Your task to perform on an android device: Search for "acer predator" on ebay.com, select the first entry, add it to the cart, then select checkout. Image 0: 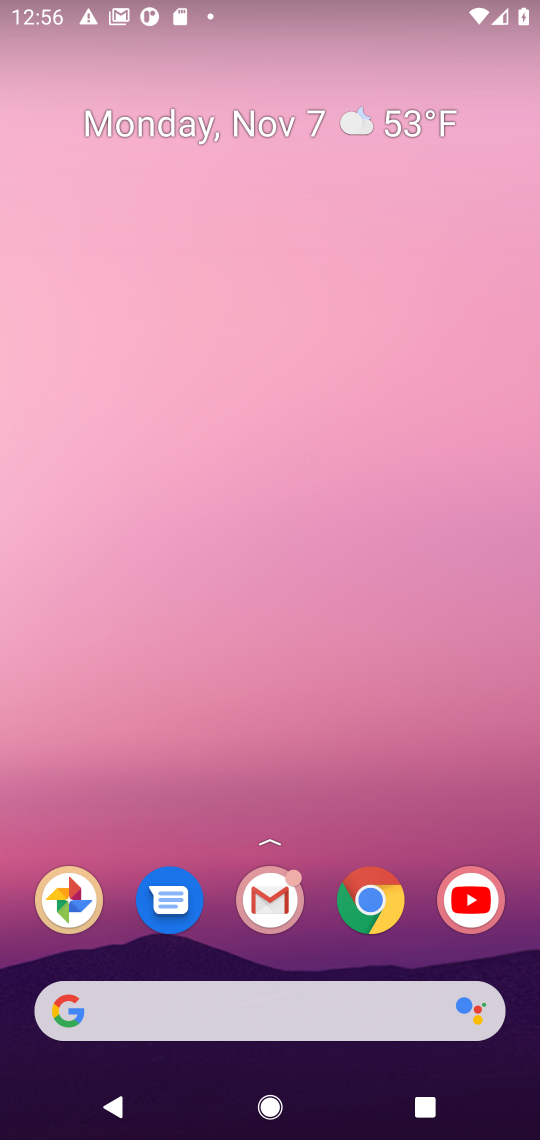
Step 0: click (178, 1028)
Your task to perform on an android device: Search for "acer predator" on ebay.com, select the first entry, add it to the cart, then select checkout. Image 1: 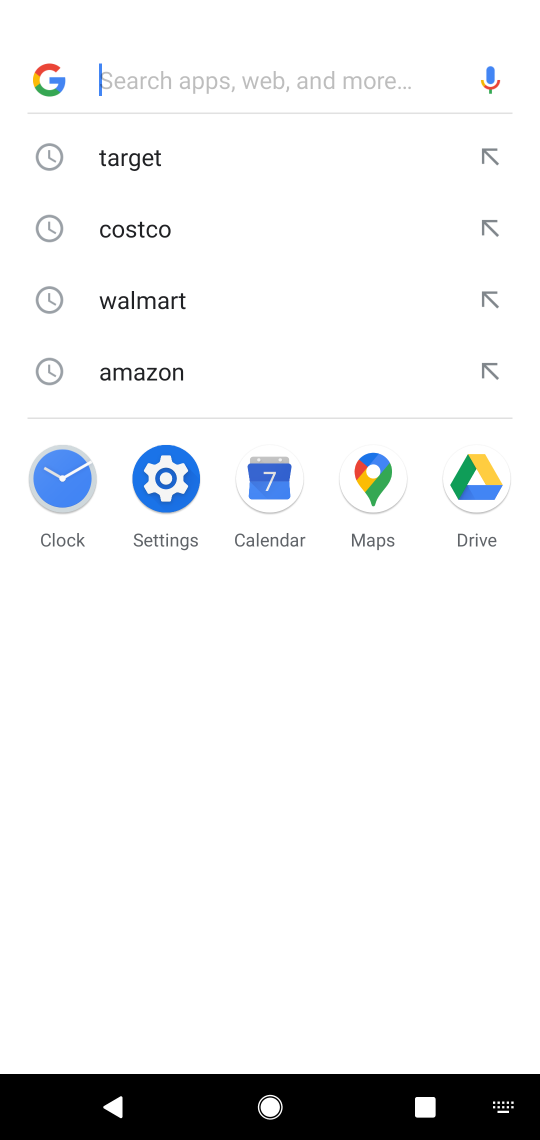
Step 1: type "ebay.com"
Your task to perform on an android device: Search for "acer predator" on ebay.com, select the first entry, add it to the cart, then select checkout. Image 2: 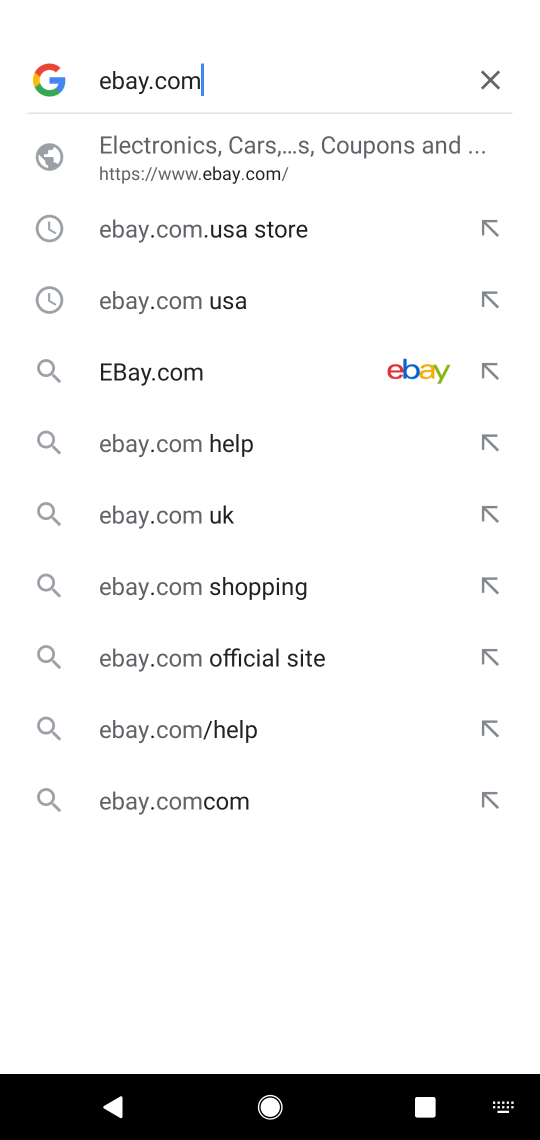
Step 2: click (161, 141)
Your task to perform on an android device: Search for "acer predator" on ebay.com, select the first entry, add it to the cart, then select checkout. Image 3: 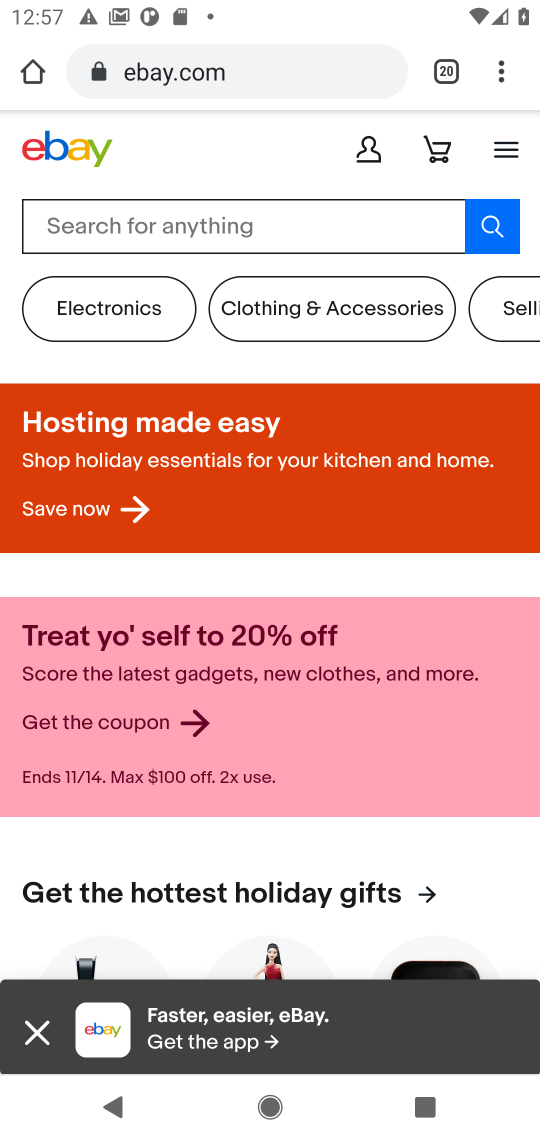
Step 3: task complete